Your task to perform on an android device: What's on my calendar today? Image 0: 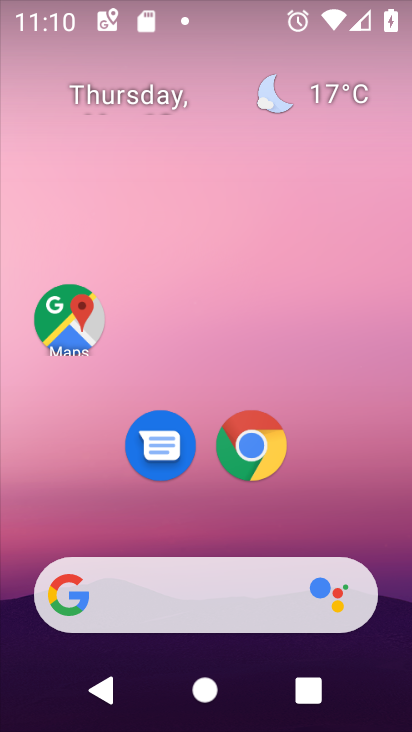
Step 0: drag from (261, 507) to (175, 194)
Your task to perform on an android device: What's on my calendar today? Image 1: 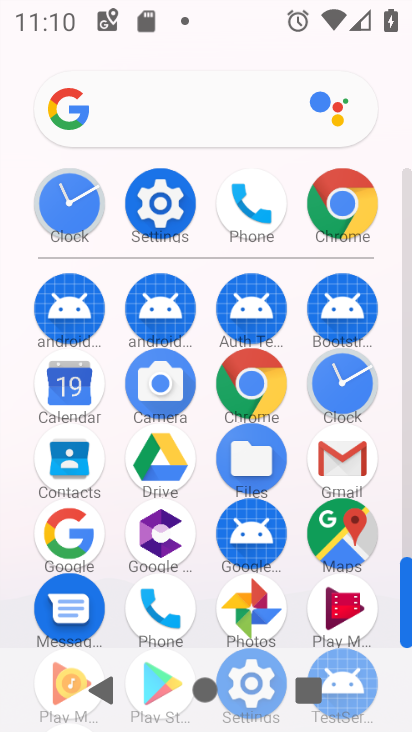
Step 1: click (63, 395)
Your task to perform on an android device: What's on my calendar today? Image 2: 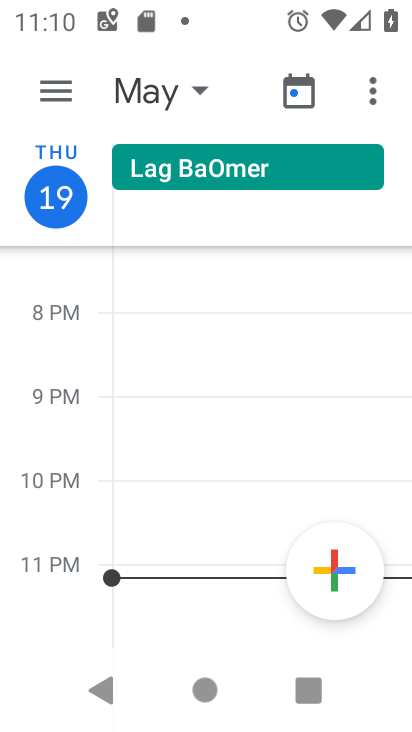
Step 2: task complete